Your task to perform on an android device: Show the shopping cart on walmart.com. Search for "asus rog" on walmart.com, select the first entry, add it to the cart, then select checkout. Image 0: 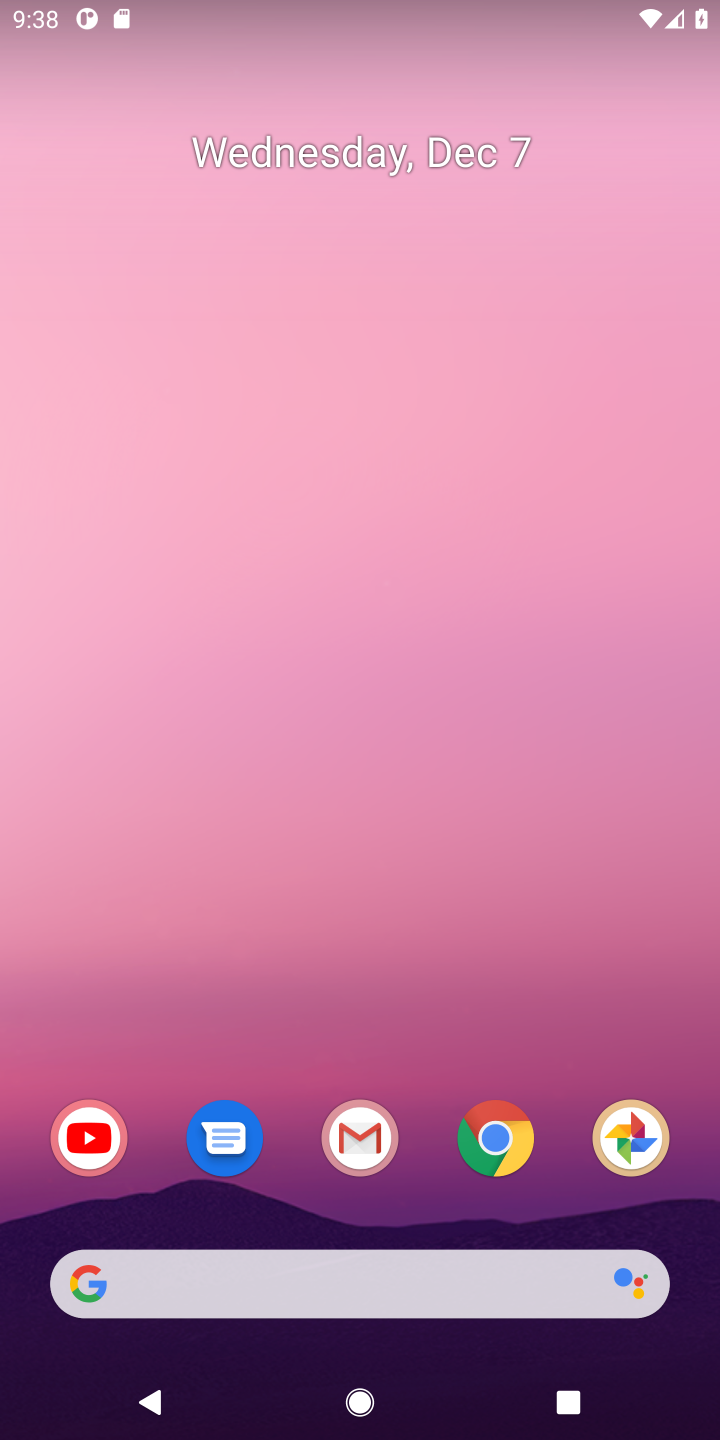
Step 0: press home button
Your task to perform on an android device: Show the shopping cart on walmart.com. Search for "asus rog" on walmart.com, select the first entry, add it to the cart, then select checkout. Image 1: 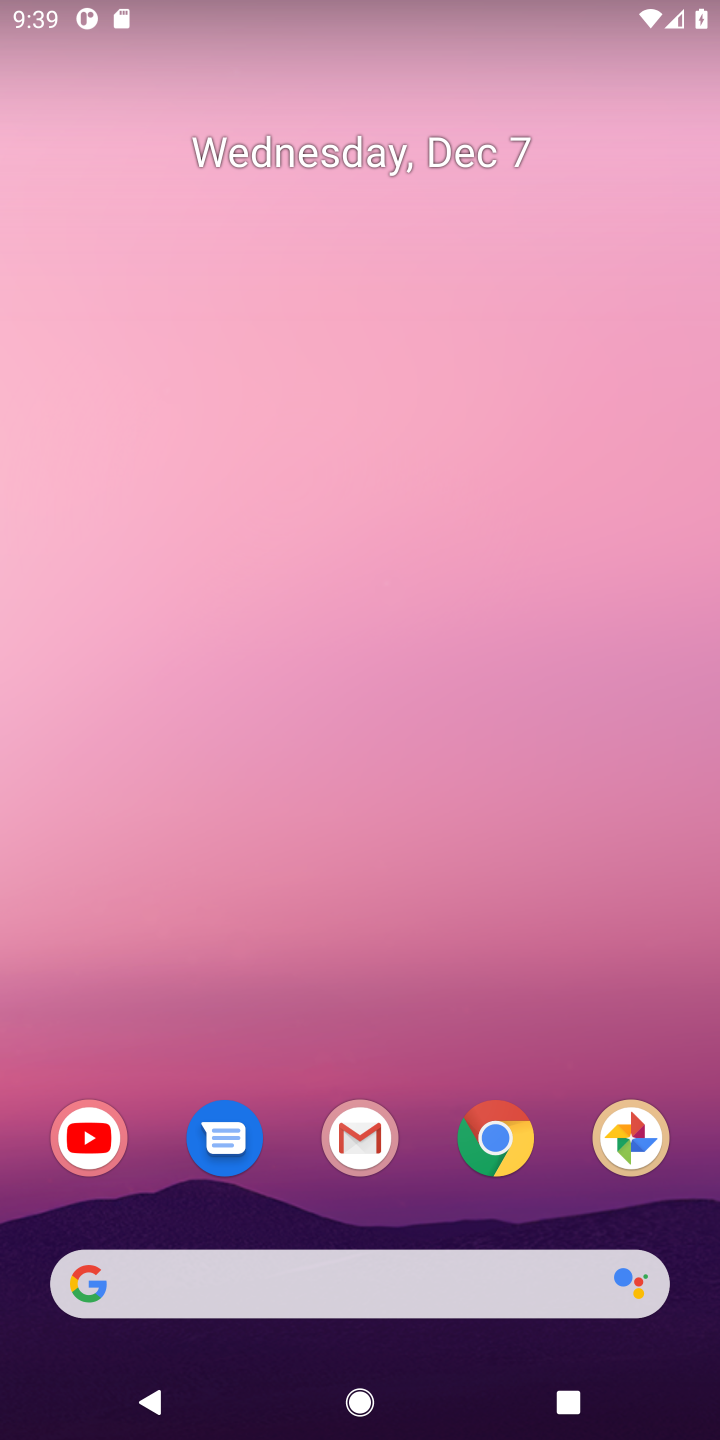
Step 1: click (139, 1287)
Your task to perform on an android device: Show the shopping cart on walmart.com. Search for "asus rog" on walmart.com, select the first entry, add it to the cart, then select checkout. Image 2: 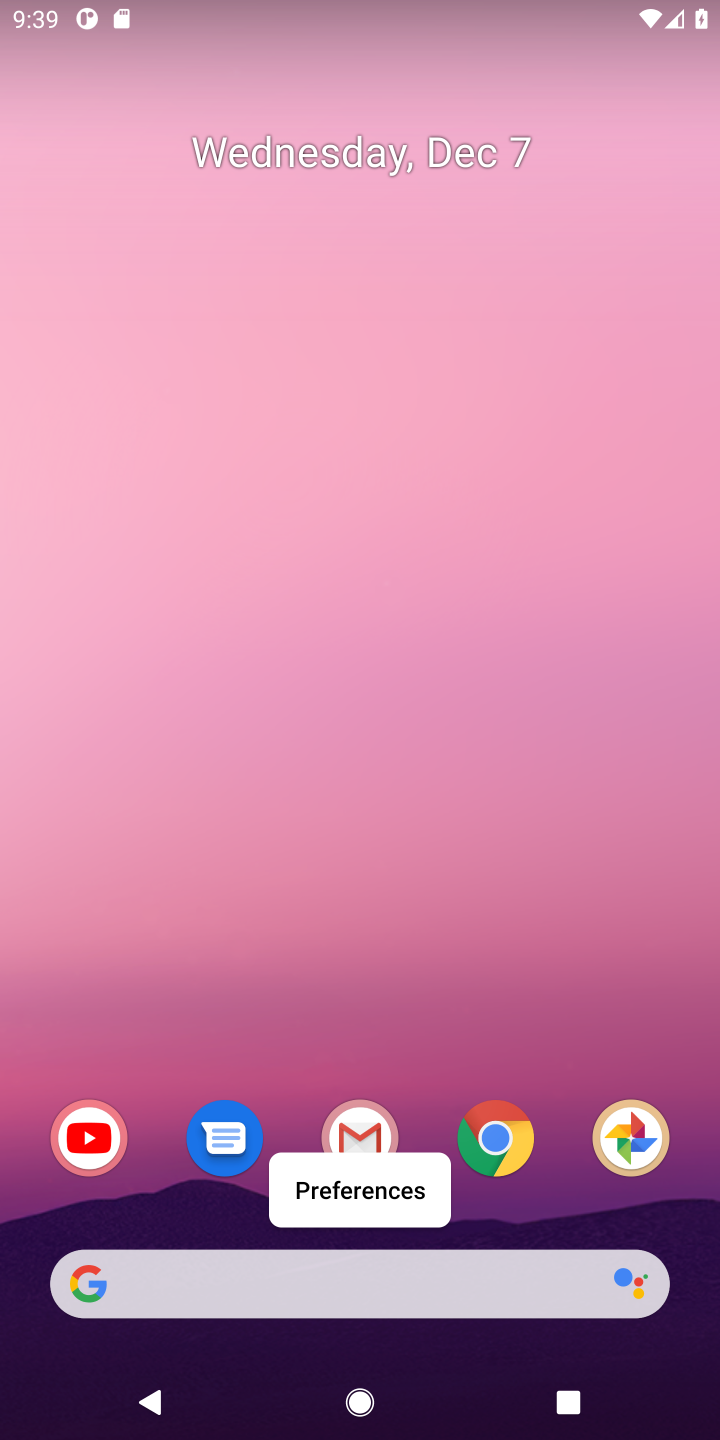
Step 2: click (124, 1277)
Your task to perform on an android device: Show the shopping cart on walmart.com. Search for "asus rog" on walmart.com, select the first entry, add it to the cart, then select checkout. Image 3: 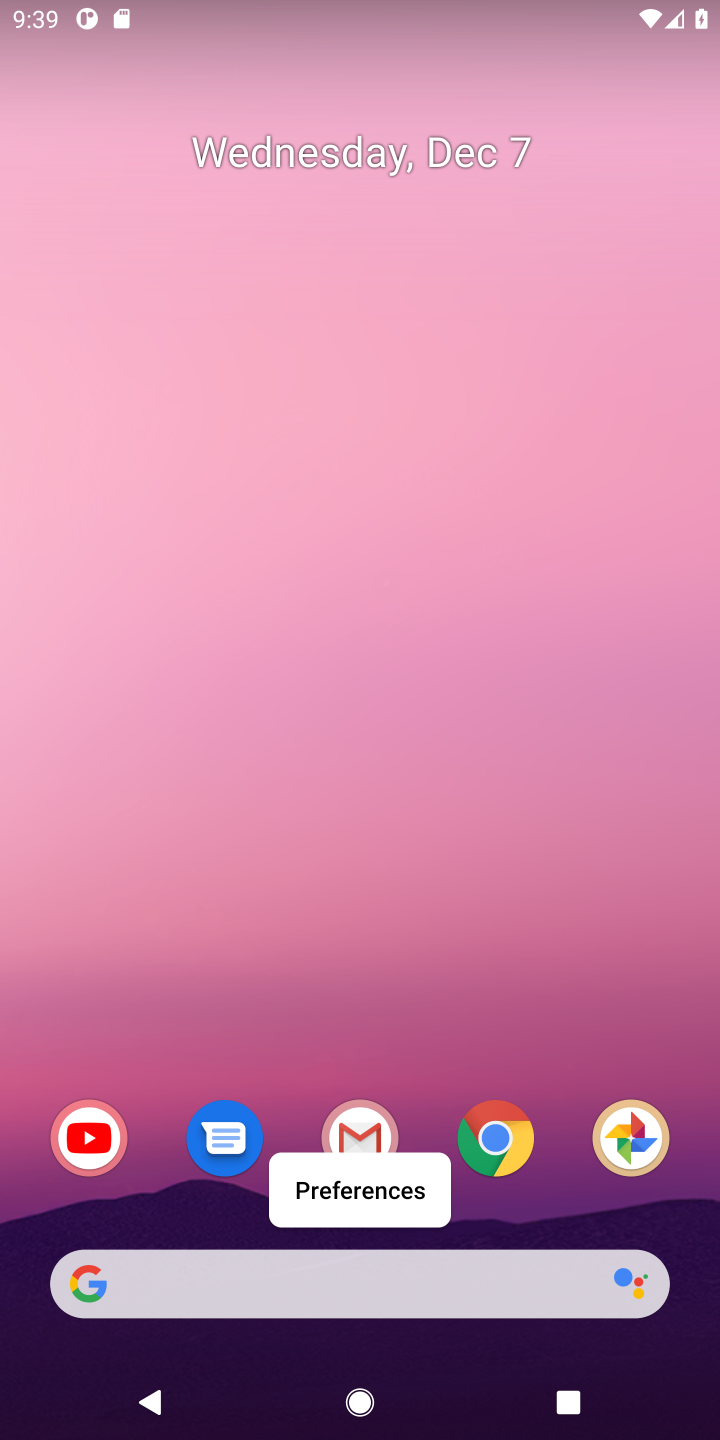
Step 3: click (145, 1284)
Your task to perform on an android device: Show the shopping cart on walmart.com. Search for "asus rog" on walmart.com, select the first entry, add it to the cart, then select checkout. Image 4: 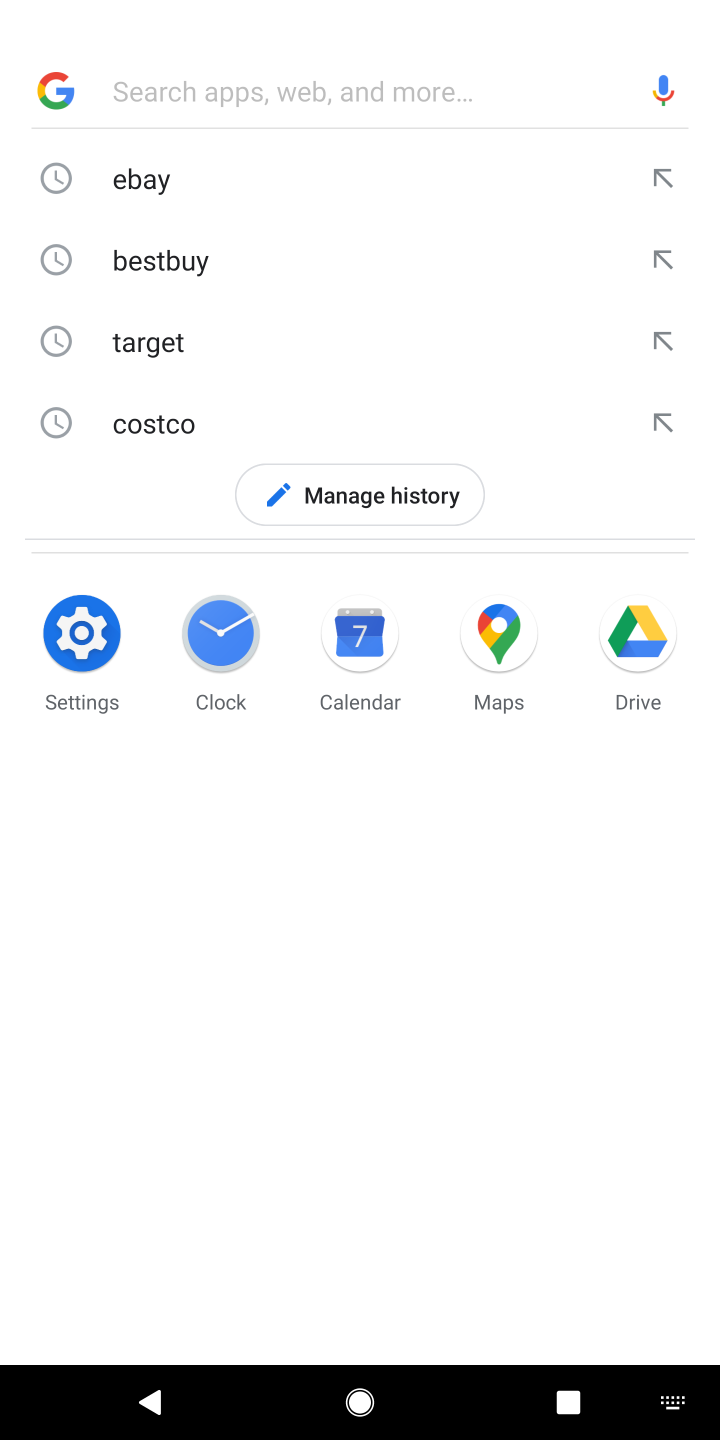
Step 4: press enter
Your task to perform on an android device: Show the shopping cart on walmart.com. Search for "asus rog" on walmart.com, select the first entry, add it to the cart, then select checkout. Image 5: 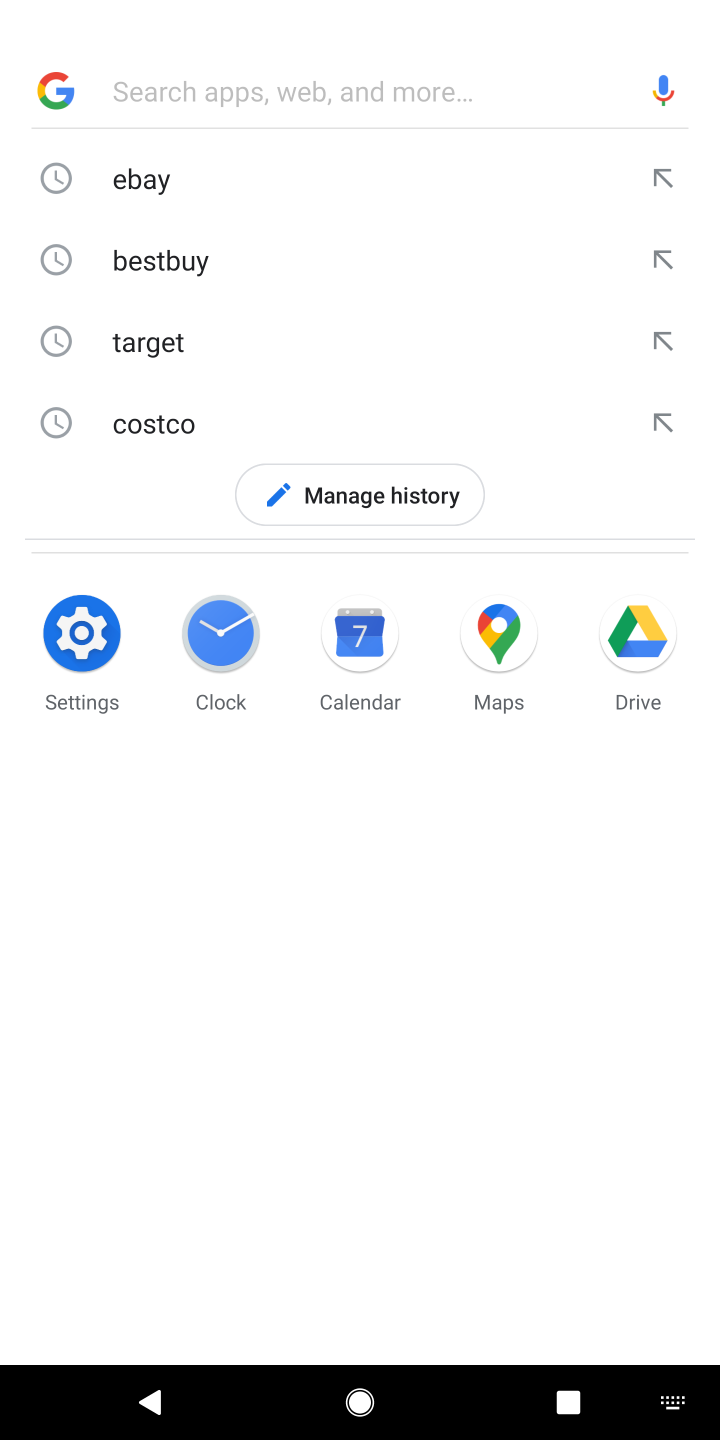
Step 5: type "walmart.com"
Your task to perform on an android device: Show the shopping cart on walmart.com. Search for "asus rog" on walmart.com, select the first entry, add it to the cart, then select checkout. Image 6: 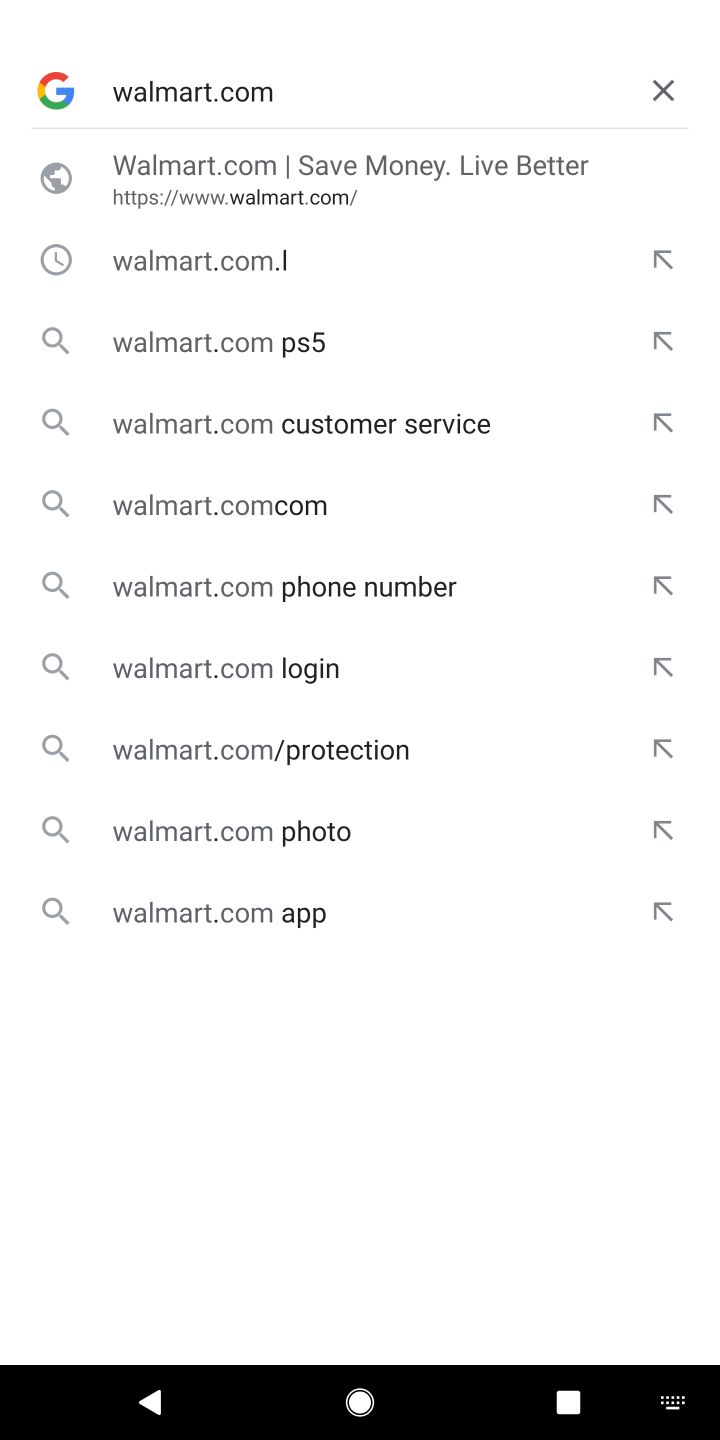
Step 6: press enter
Your task to perform on an android device: Show the shopping cart on walmart.com. Search for "asus rog" on walmart.com, select the first entry, add it to the cart, then select checkout. Image 7: 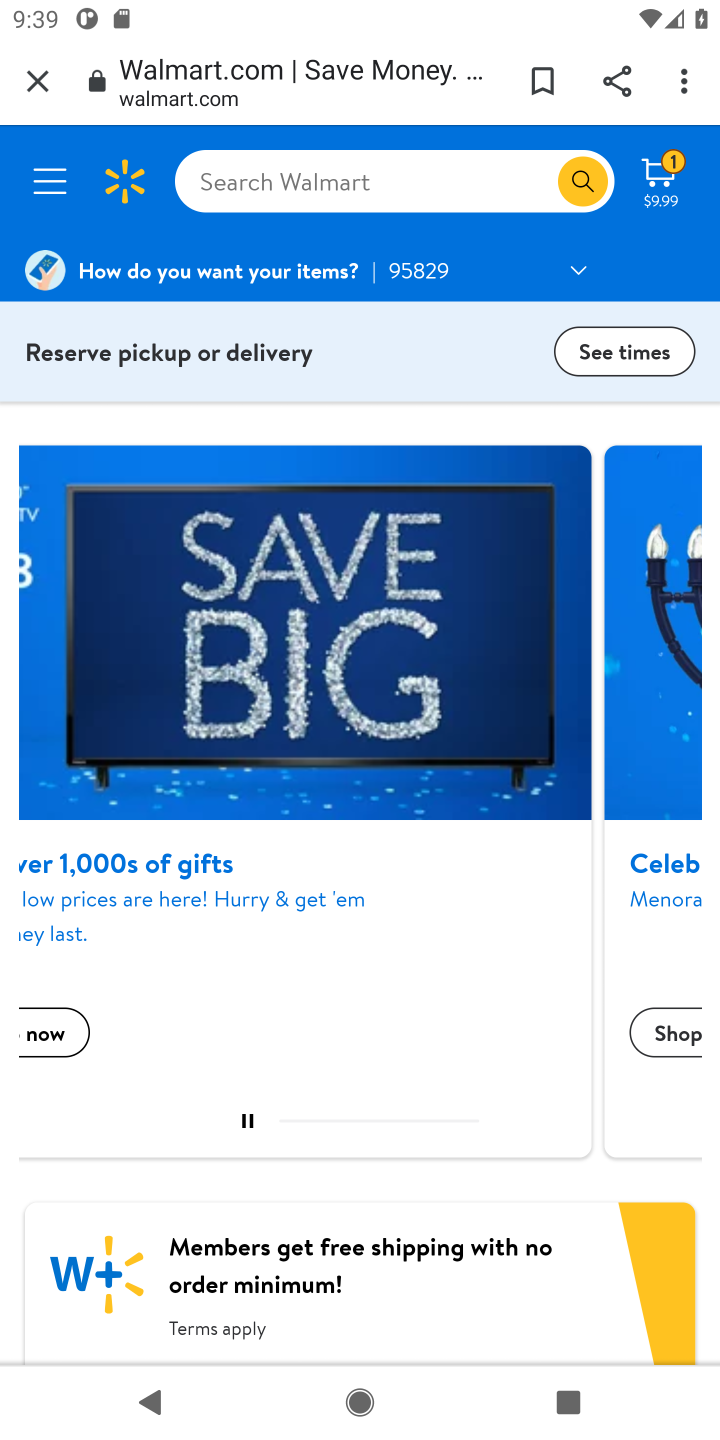
Step 7: click (663, 172)
Your task to perform on an android device: Show the shopping cart on walmart.com. Search for "asus rog" on walmart.com, select the first entry, add it to the cart, then select checkout. Image 8: 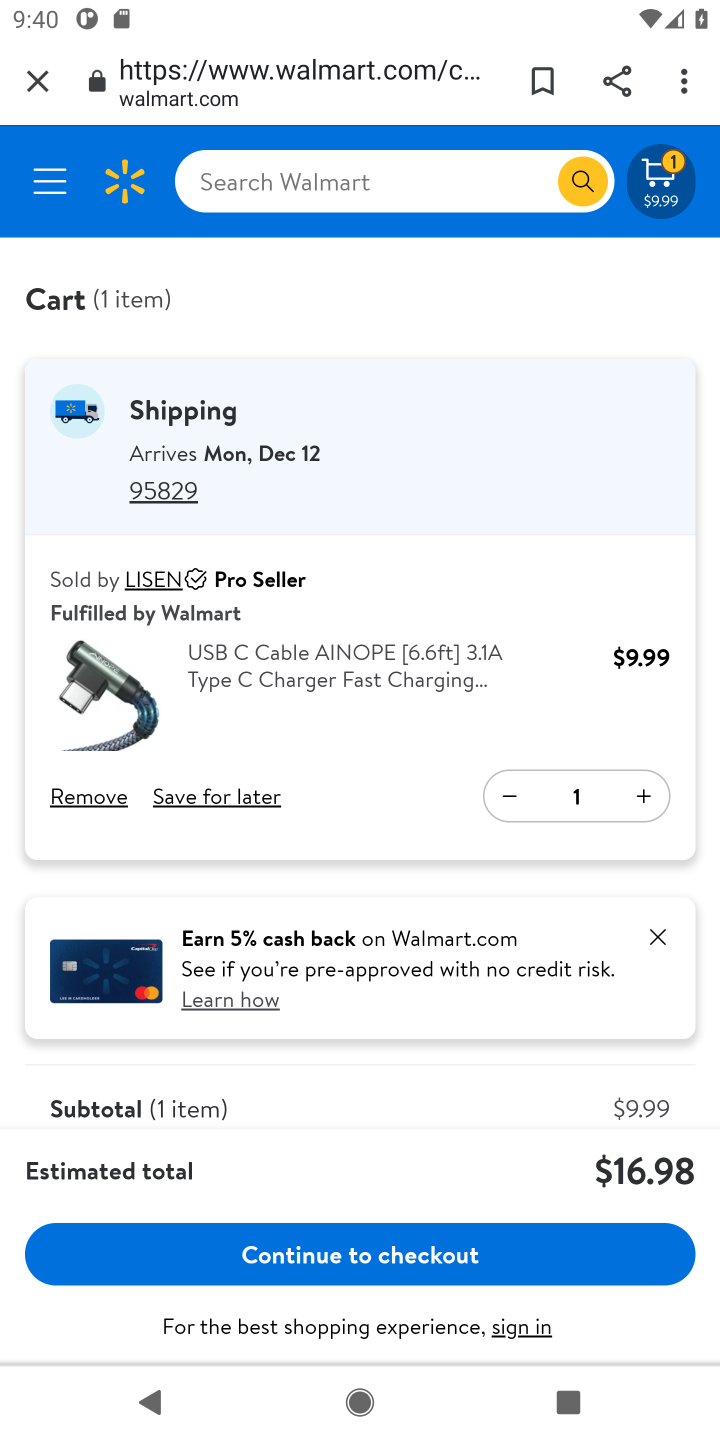
Step 8: click (344, 174)
Your task to perform on an android device: Show the shopping cart on walmart.com. Search for "asus rog" on walmart.com, select the first entry, add it to the cart, then select checkout. Image 9: 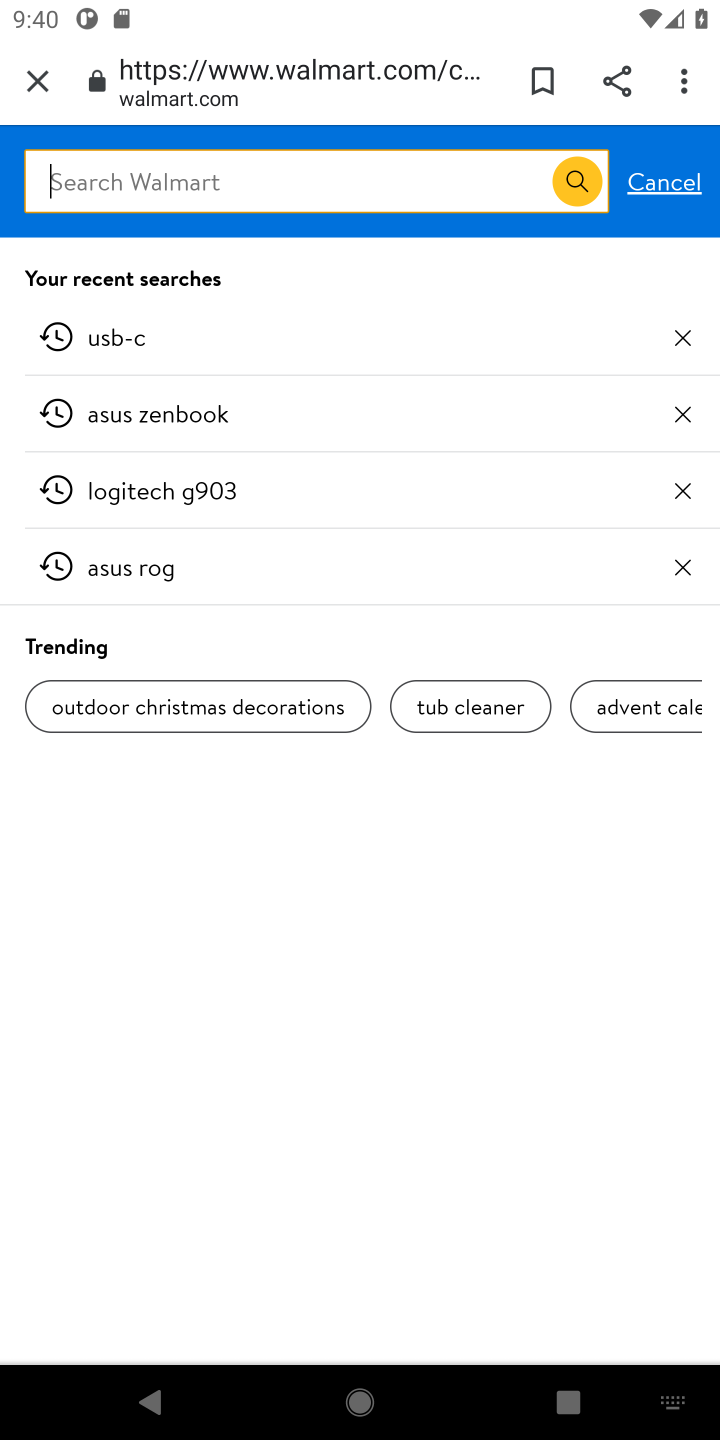
Step 9: press enter
Your task to perform on an android device: Show the shopping cart on walmart.com. Search for "asus rog" on walmart.com, select the first entry, add it to the cart, then select checkout. Image 10: 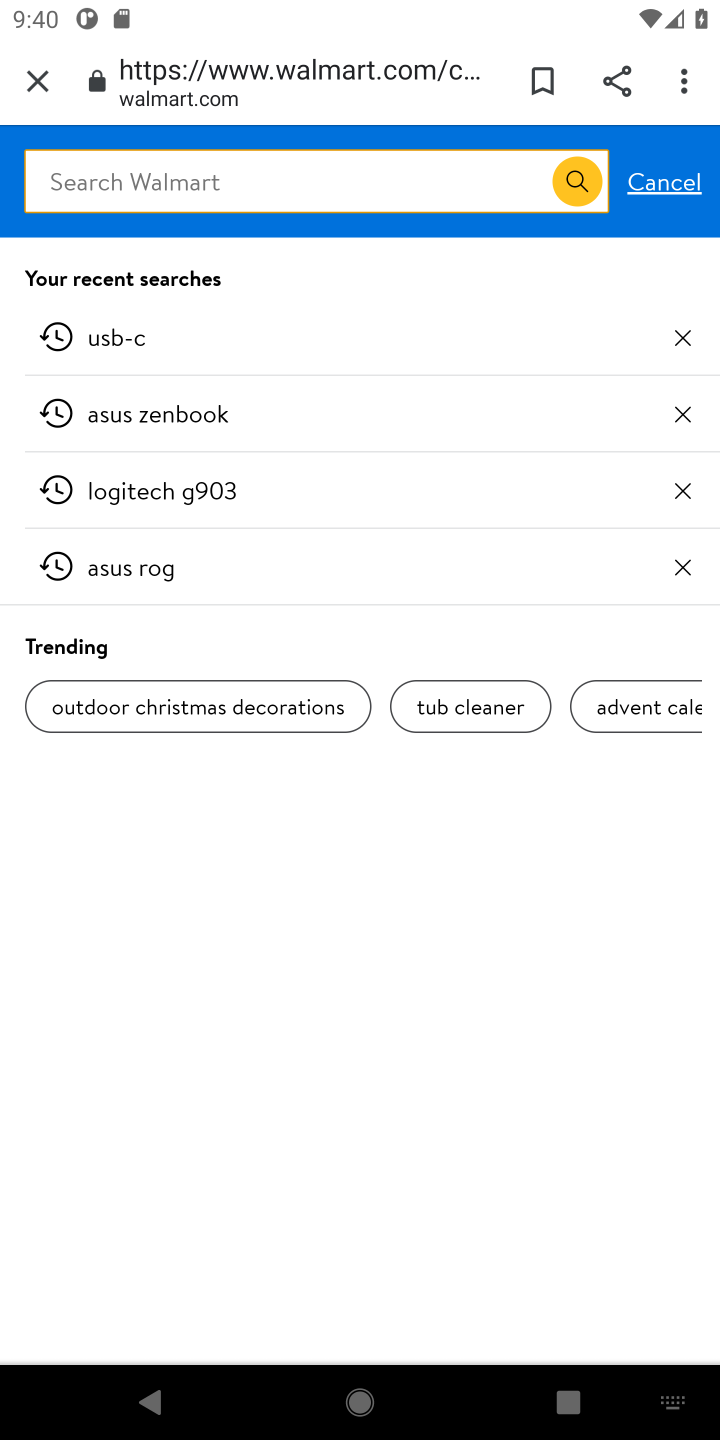
Step 10: type "asus rog"
Your task to perform on an android device: Show the shopping cart on walmart.com. Search for "asus rog" on walmart.com, select the first entry, add it to the cart, then select checkout. Image 11: 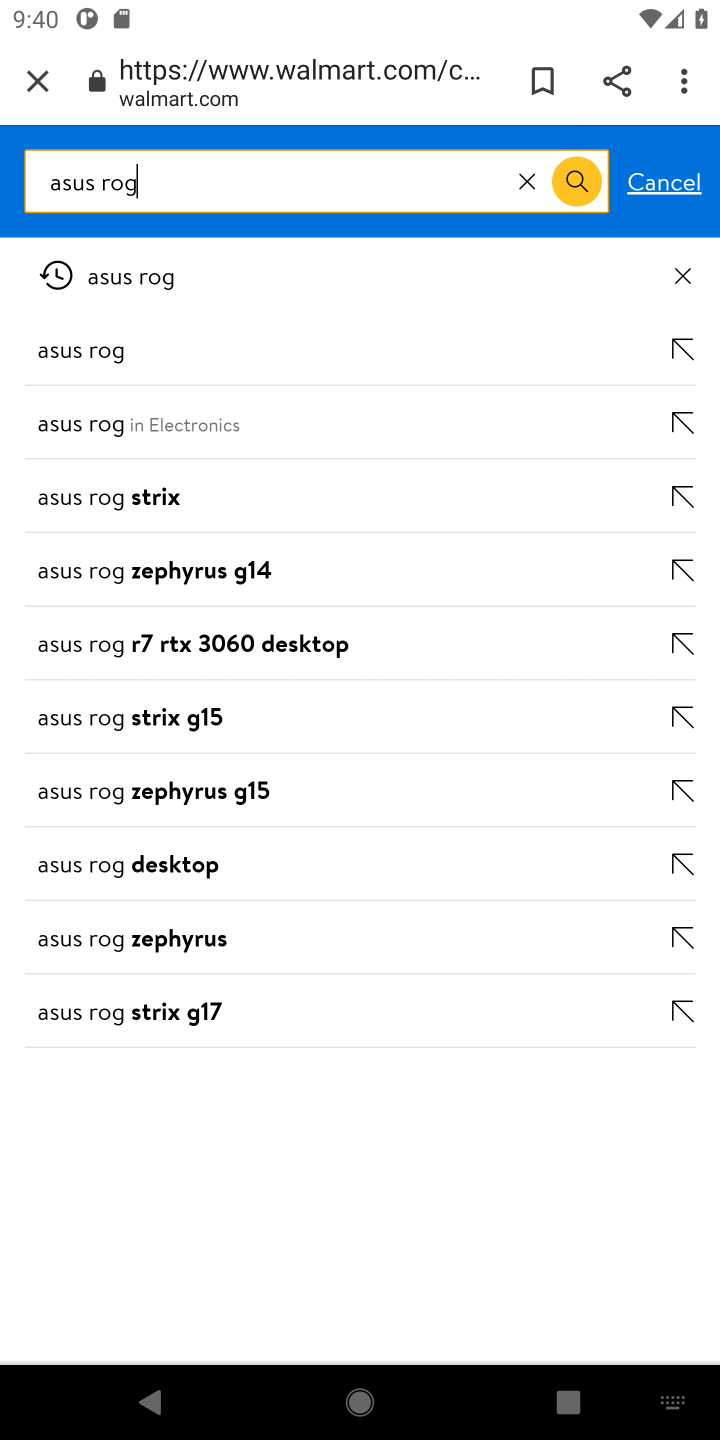
Step 11: click (575, 177)
Your task to perform on an android device: Show the shopping cart on walmart.com. Search for "asus rog" on walmart.com, select the first entry, add it to the cart, then select checkout. Image 12: 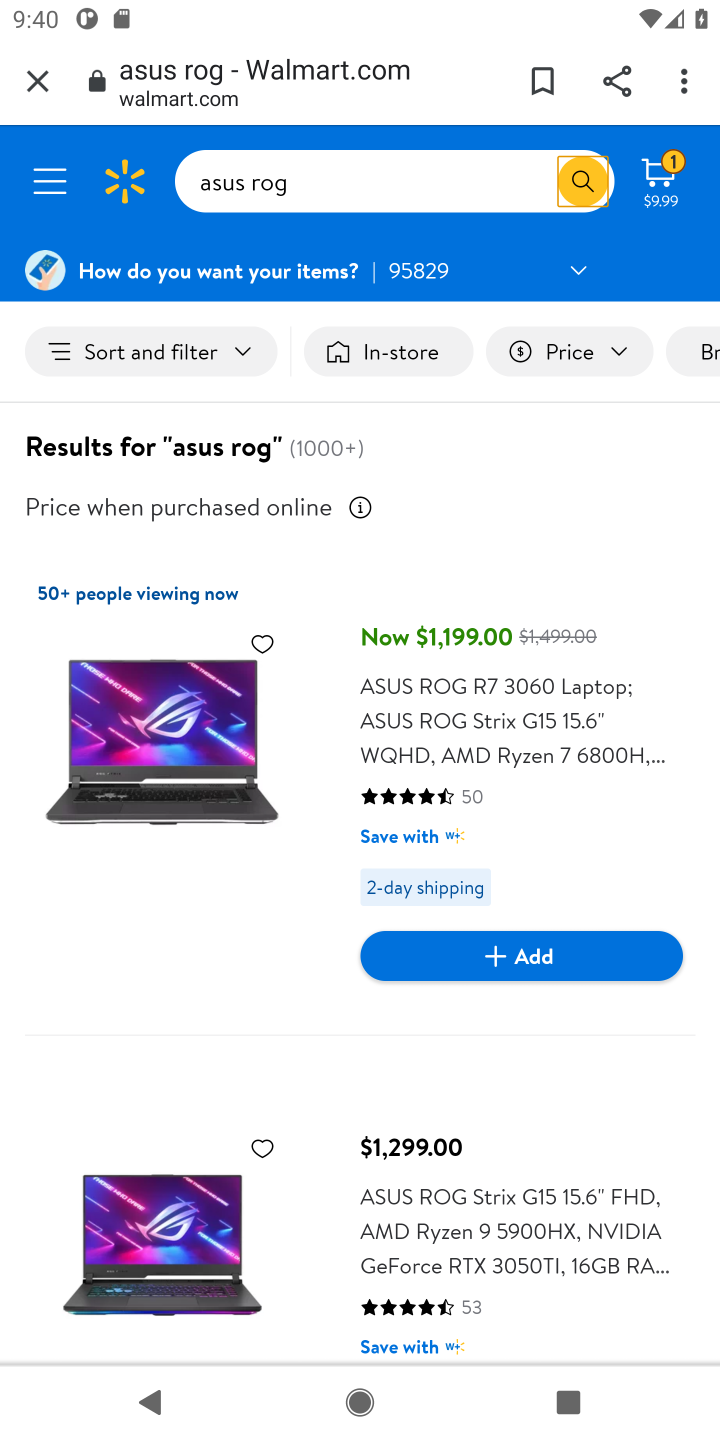
Step 12: click (536, 953)
Your task to perform on an android device: Show the shopping cart on walmart.com. Search for "asus rog" on walmart.com, select the first entry, add it to the cart, then select checkout. Image 13: 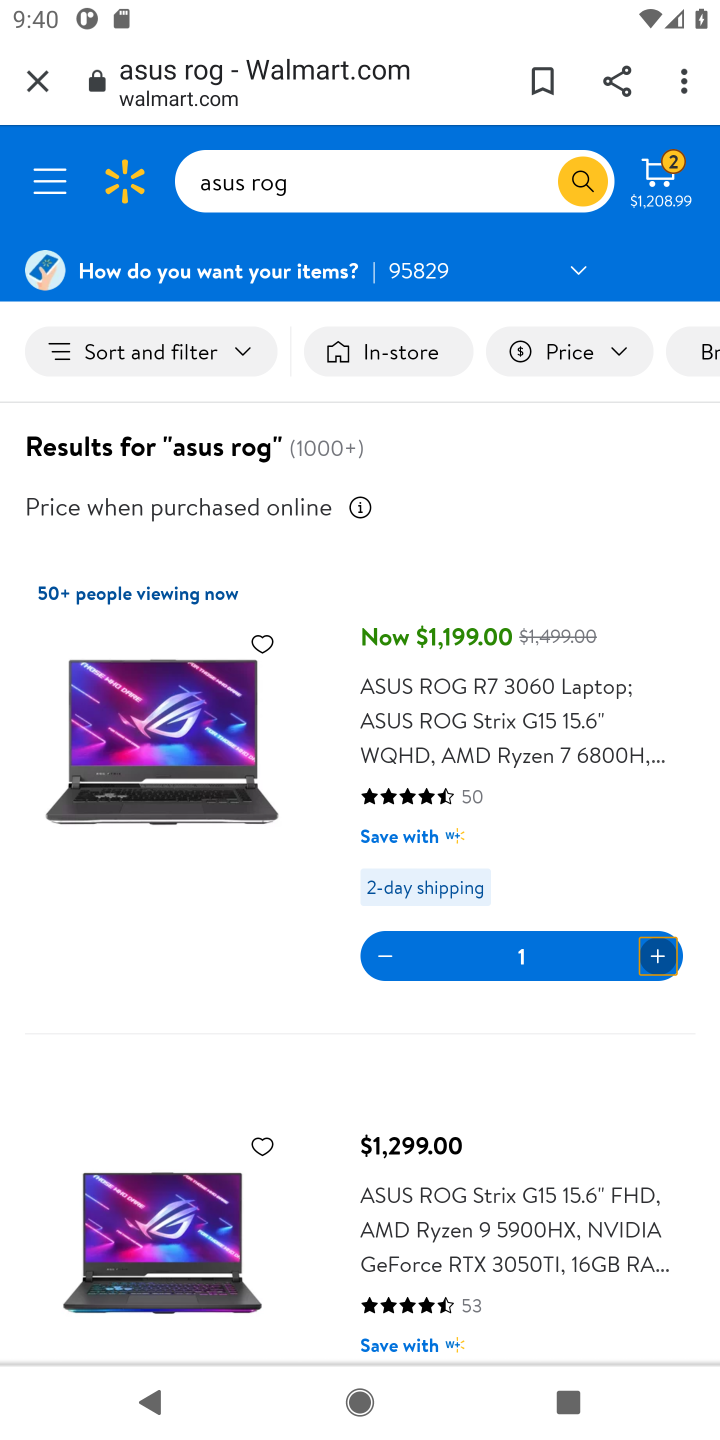
Step 13: task complete